Your task to perform on an android device: toggle airplane mode Image 0: 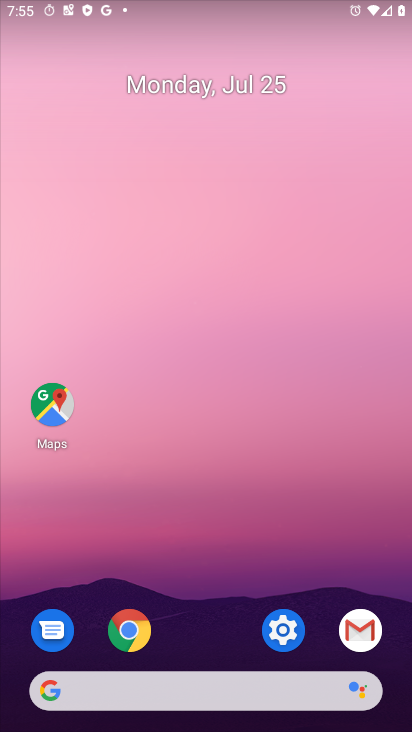
Step 0: click (282, 638)
Your task to perform on an android device: toggle airplane mode Image 1: 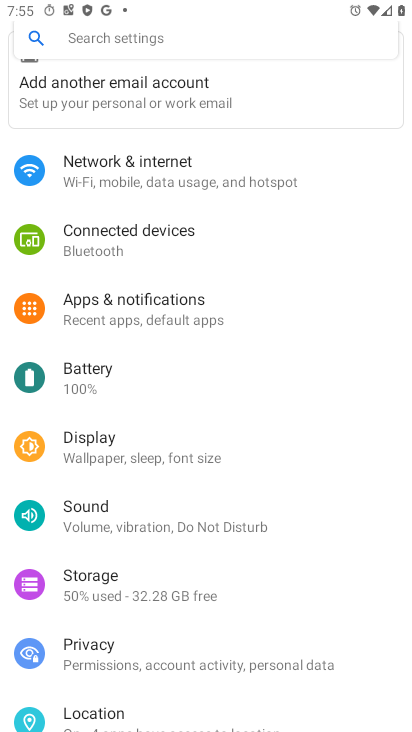
Step 1: click (118, 171)
Your task to perform on an android device: toggle airplane mode Image 2: 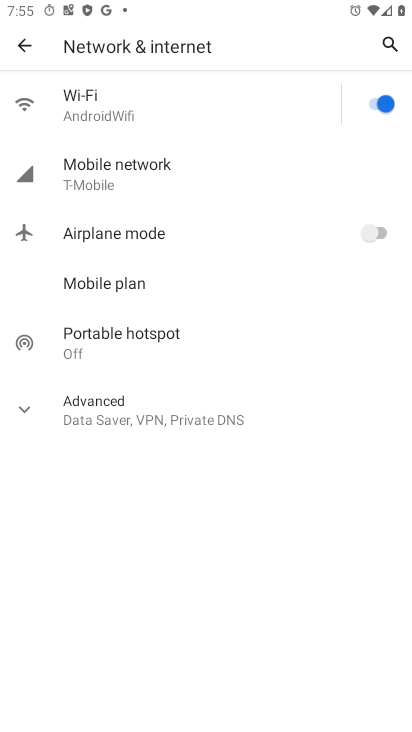
Step 2: click (157, 239)
Your task to perform on an android device: toggle airplane mode Image 3: 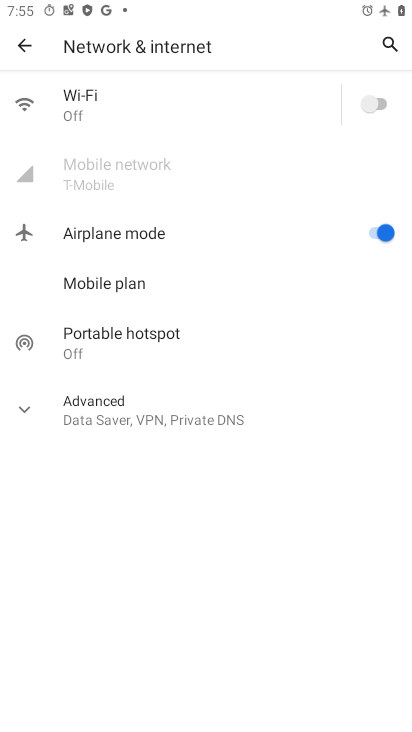
Step 3: click (198, 248)
Your task to perform on an android device: toggle airplane mode Image 4: 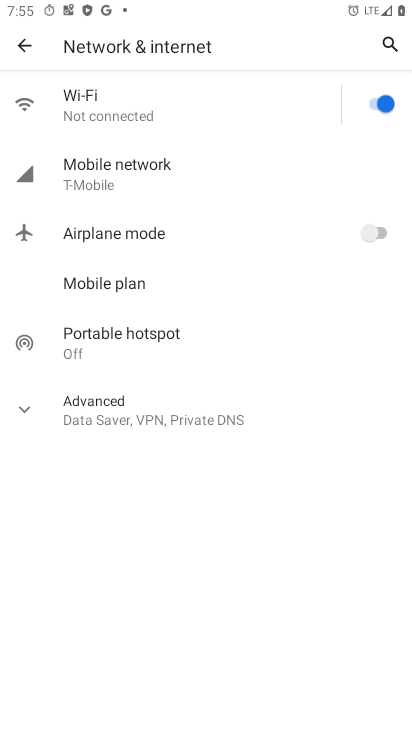
Step 4: task complete